Your task to perform on an android device: turn on translation in the chrome app Image 0: 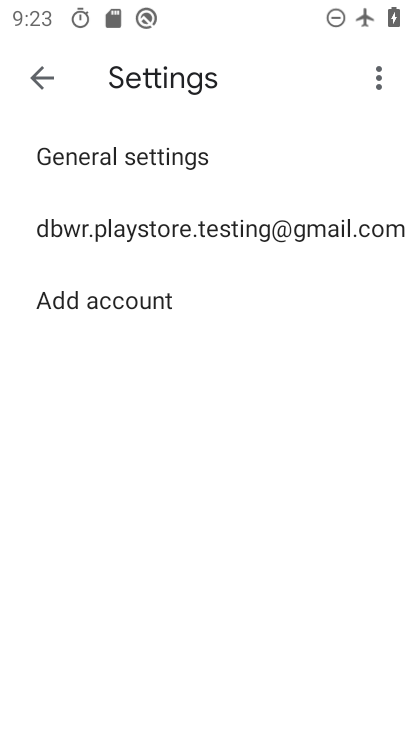
Step 0: press home button
Your task to perform on an android device: turn on translation in the chrome app Image 1: 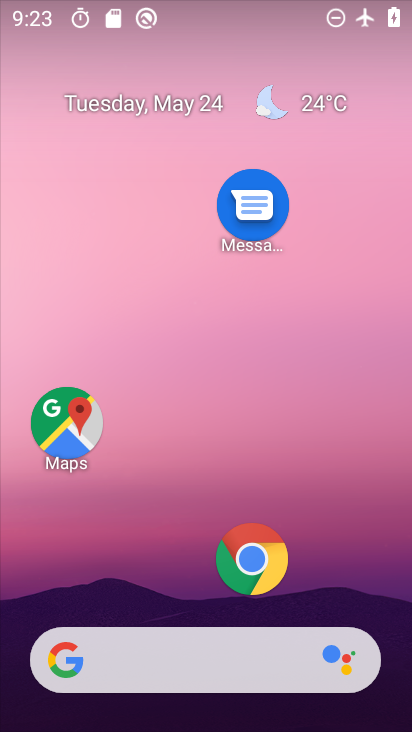
Step 1: click (271, 540)
Your task to perform on an android device: turn on translation in the chrome app Image 2: 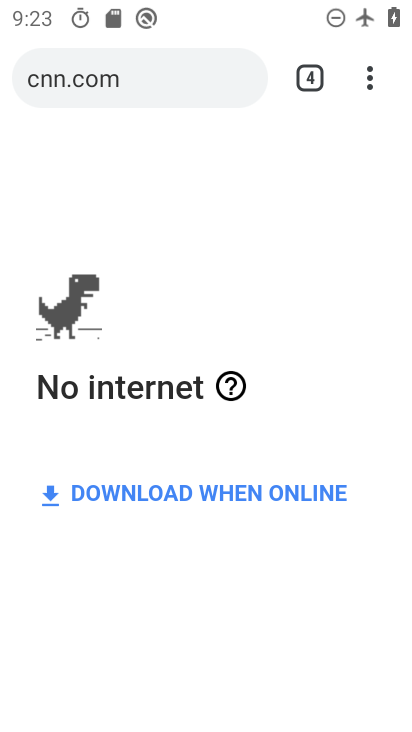
Step 2: click (376, 75)
Your task to perform on an android device: turn on translation in the chrome app Image 3: 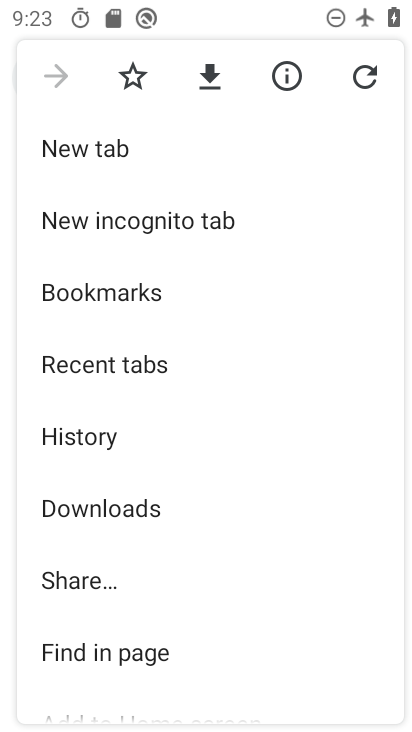
Step 3: drag from (181, 614) to (216, 312)
Your task to perform on an android device: turn on translation in the chrome app Image 4: 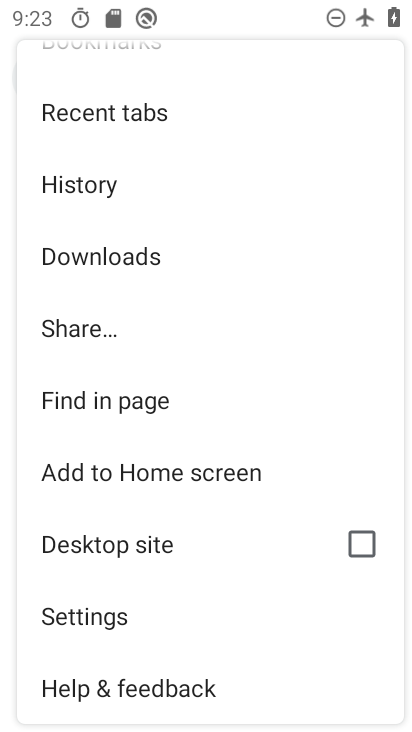
Step 4: click (171, 612)
Your task to perform on an android device: turn on translation in the chrome app Image 5: 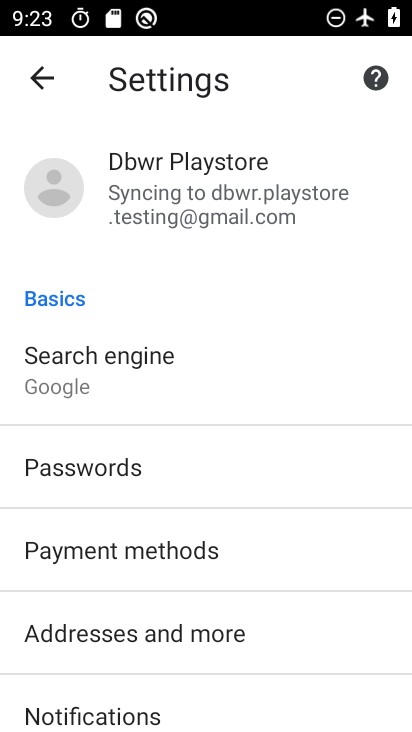
Step 5: drag from (191, 625) to (267, 338)
Your task to perform on an android device: turn on translation in the chrome app Image 6: 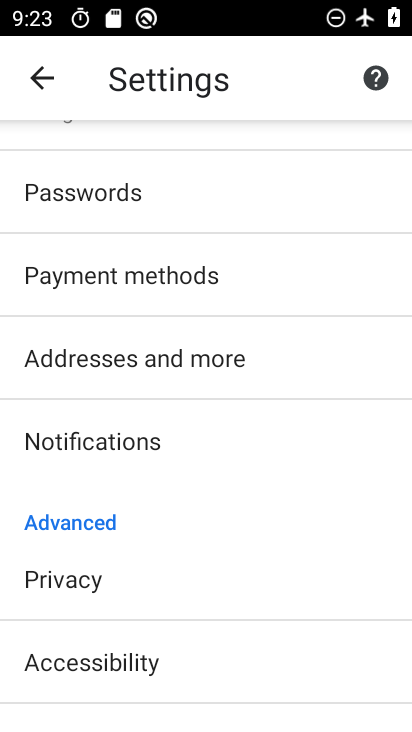
Step 6: drag from (198, 652) to (252, 377)
Your task to perform on an android device: turn on translation in the chrome app Image 7: 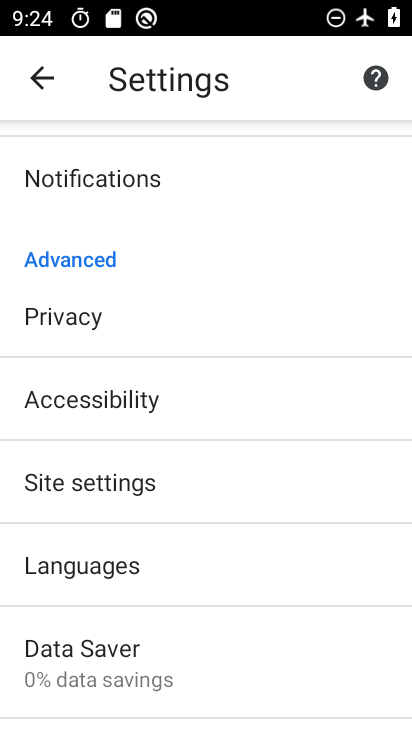
Step 7: click (150, 571)
Your task to perform on an android device: turn on translation in the chrome app Image 8: 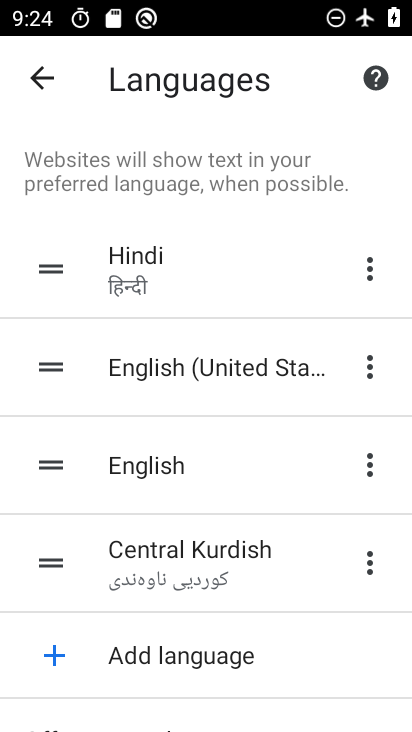
Step 8: task complete